Your task to perform on an android device: Toggle the flashlight Image 0: 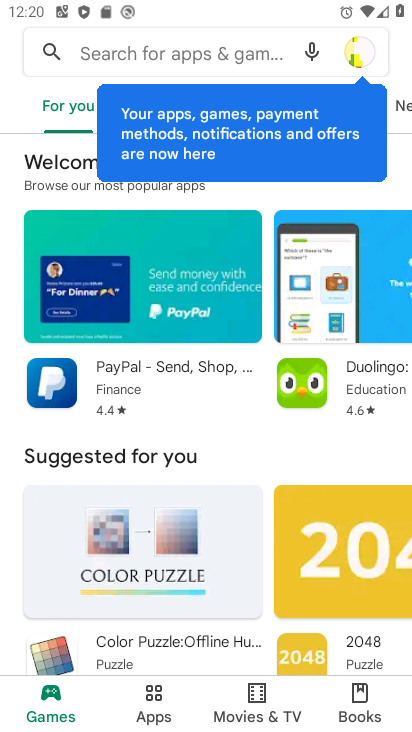
Step 0: press home button
Your task to perform on an android device: Toggle the flashlight Image 1: 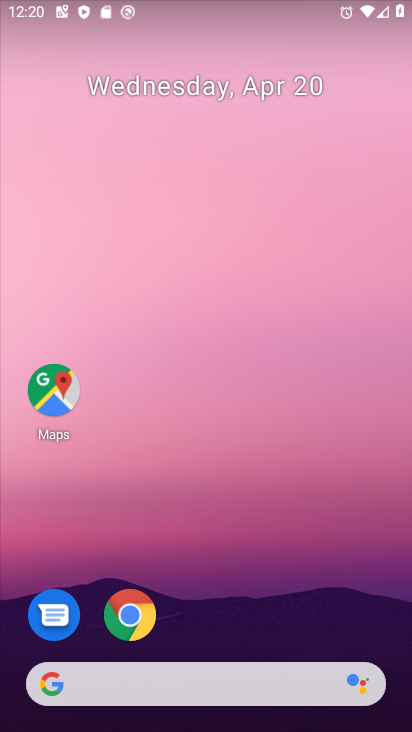
Step 1: drag from (352, 559) to (318, 155)
Your task to perform on an android device: Toggle the flashlight Image 2: 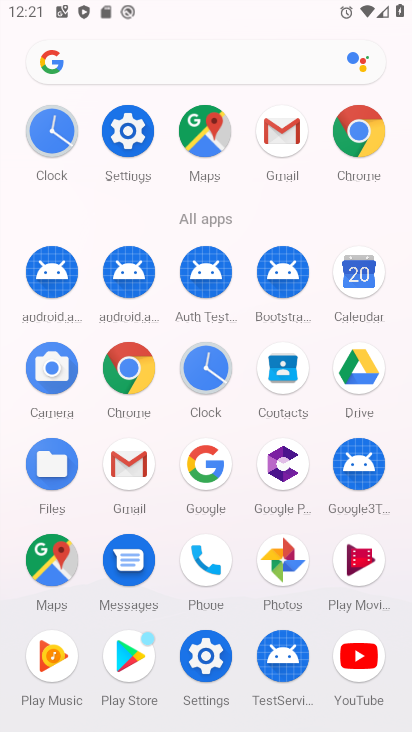
Step 2: click (201, 660)
Your task to perform on an android device: Toggle the flashlight Image 3: 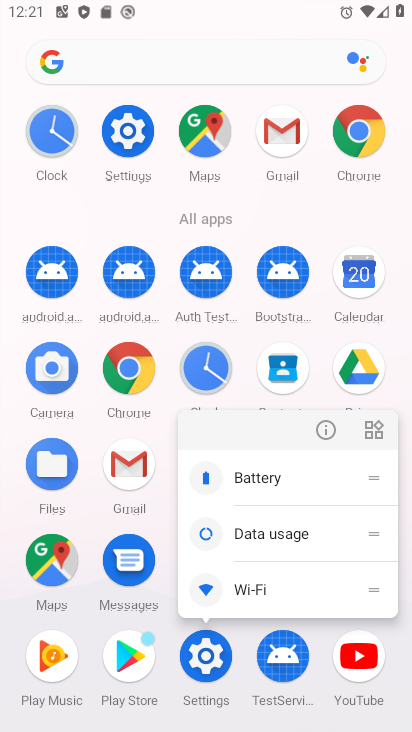
Step 3: click (198, 653)
Your task to perform on an android device: Toggle the flashlight Image 4: 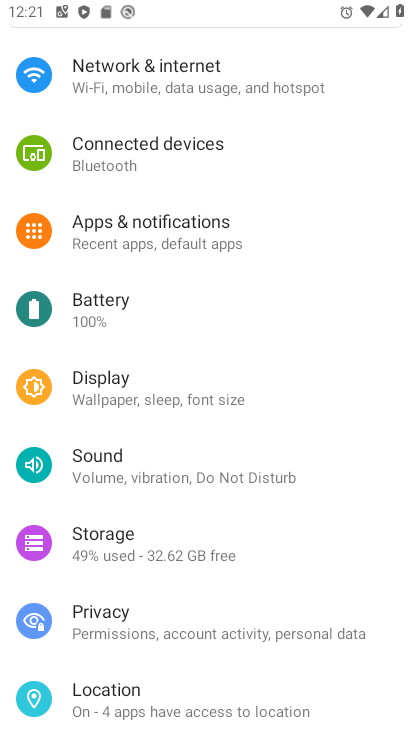
Step 4: click (102, 391)
Your task to perform on an android device: Toggle the flashlight Image 5: 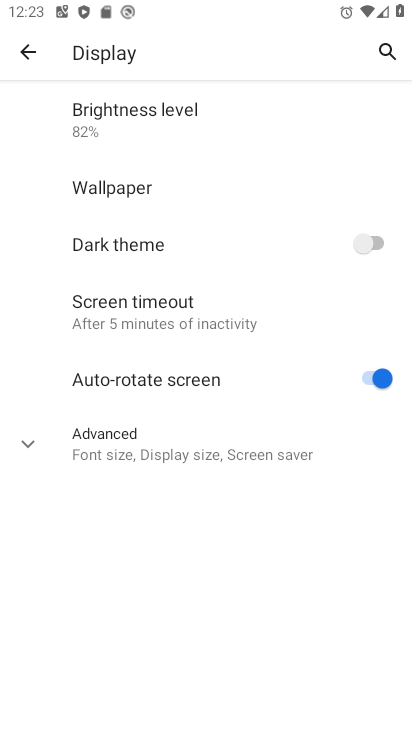
Step 5: task complete